Your task to perform on an android device: toggle notifications settings in the gmail app Image 0: 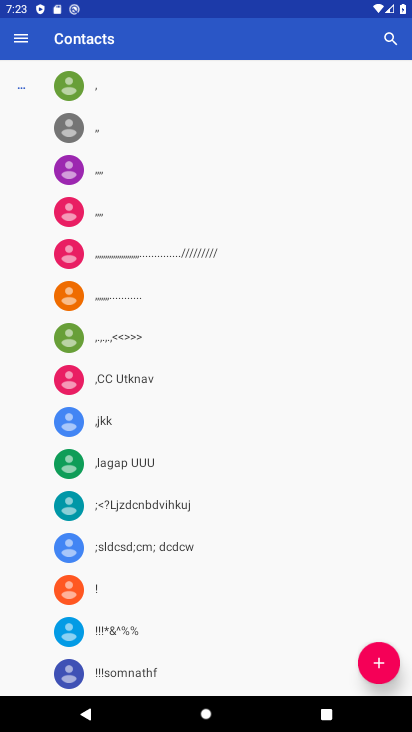
Step 0: press home button
Your task to perform on an android device: toggle notifications settings in the gmail app Image 1: 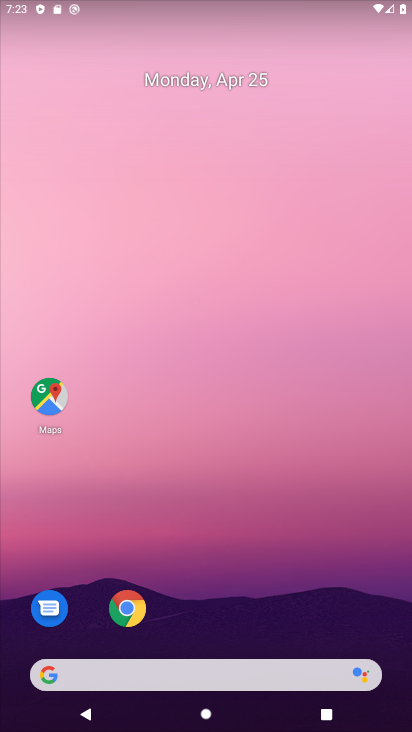
Step 1: drag from (241, 442) to (240, 28)
Your task to perform on an android device: toggle notifications settings in the gmail app Image 2: 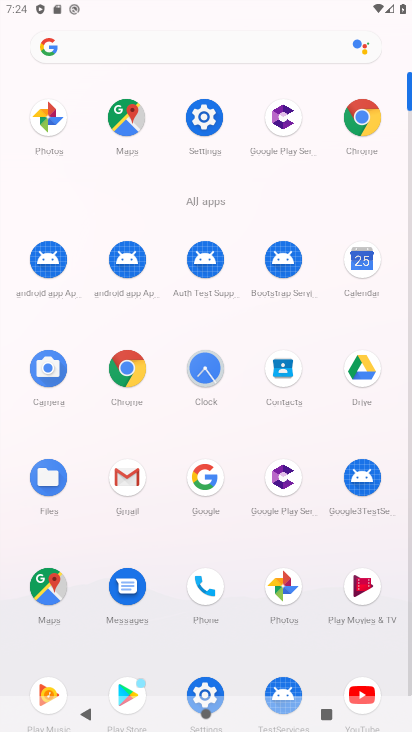
Step 2: click (125, 482)
Your task to perform on an android device: toggle notifications settings in the gmail app Image 3: 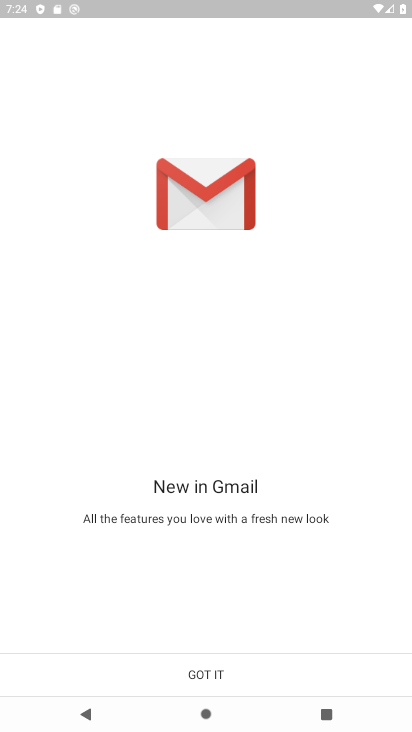
Step 3: click (222, 678)
Your task to perform on an android device: toggle notifications settings in the gmail app Image 4: 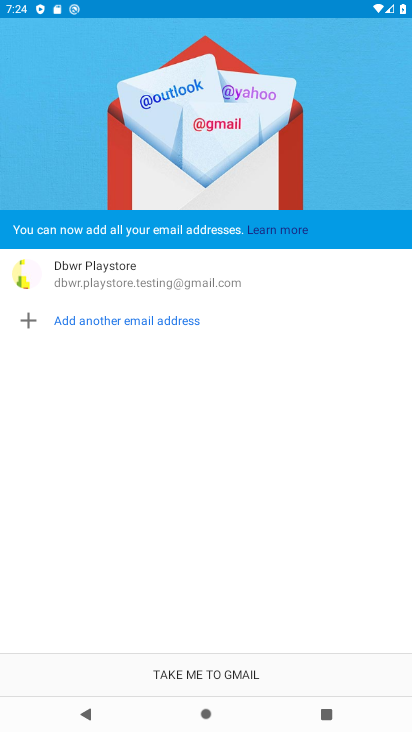
Step 4: click (197, 666)
Your task to perform on an android device: toggle notifications settings in the gmail app Image 5: 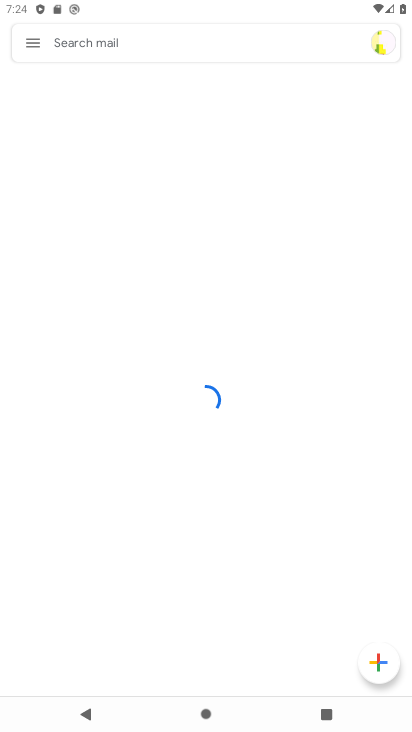
Step 5: click (33, 44)
Your task to perform on an android device: toggle notifications settings in the gmail app Image 6: 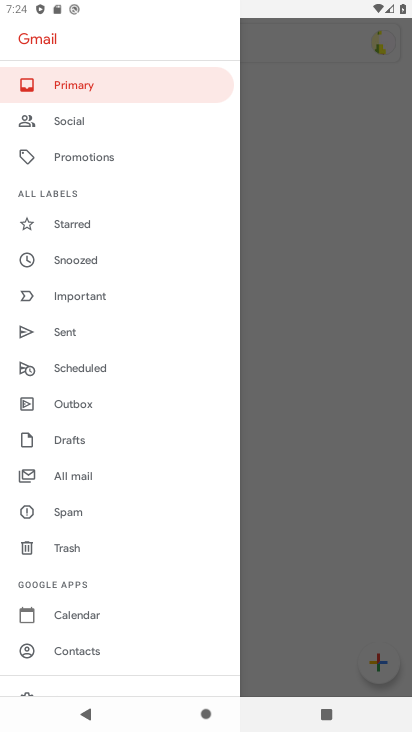
Step 6: drag from (90, 608) to (127, 234)
Your task to perform on an android device: toggle notifications settings in the gmail app Image 7: 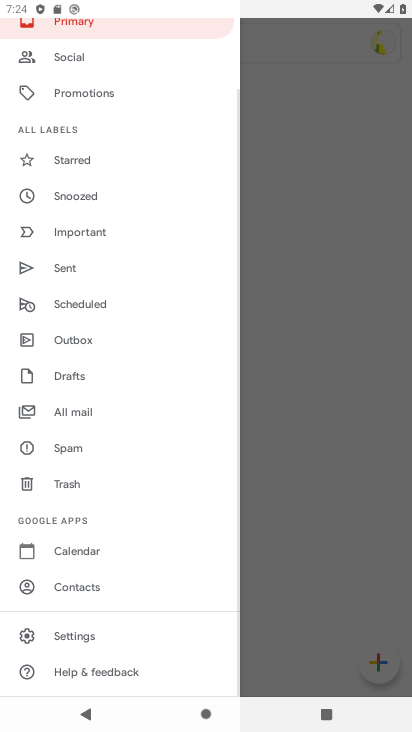
Step 7: click (78, 631)
Your task to perform on an android device: toggle notifications settings in the gmail app Image 8: 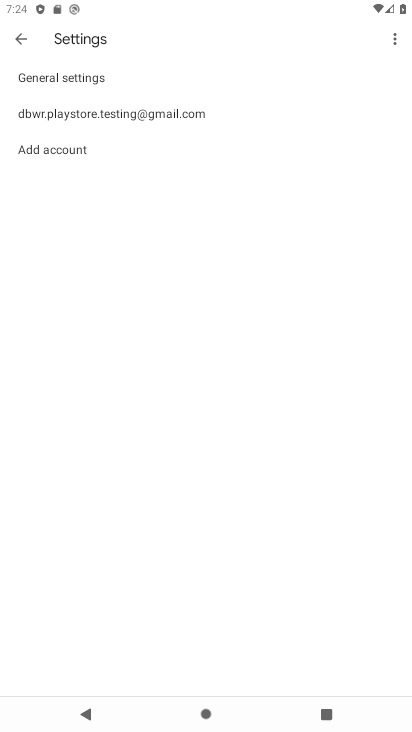
Step 8: click (73, 80)
Your task to perform on an android device: toggle notifications settings in the gmail app Image 9: 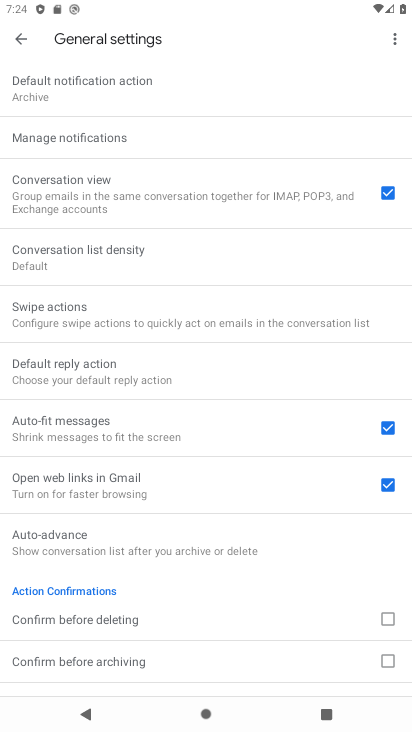
Step 9: click (76, 138)
Your task to perform on an android device: toggle notifications settings in the gmail app Image 10: 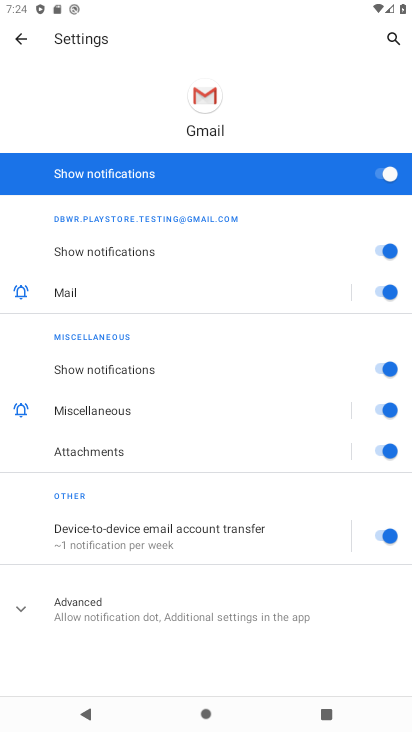
Step 10: click (379, 173)
Your task to perform on an android device: toggle notifications settings in the gmail app Image 11: 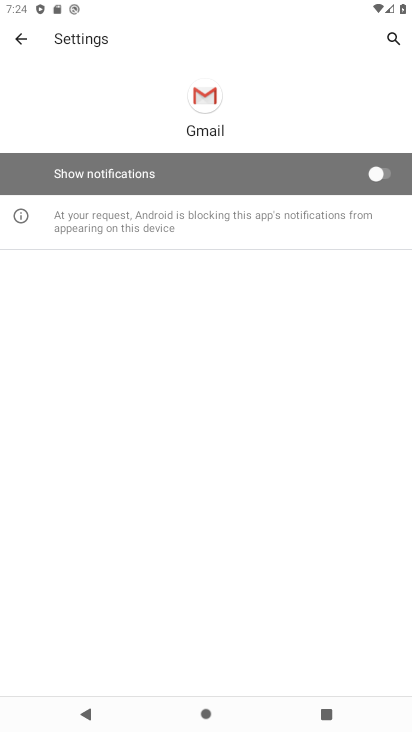
Step 11: task complete